Your task to perform on an android device: Do I have any events this weekend? Image 0: 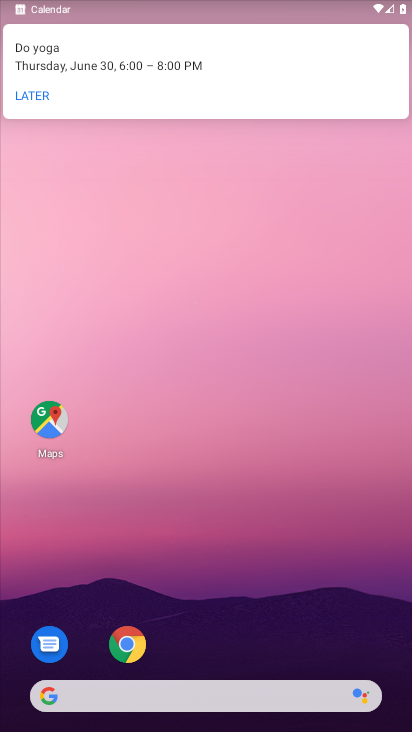
Step 0: drag from (151, 37) to (94, 102)
Your task to perform on an android device: Do I have any events this weekend? Image 1: 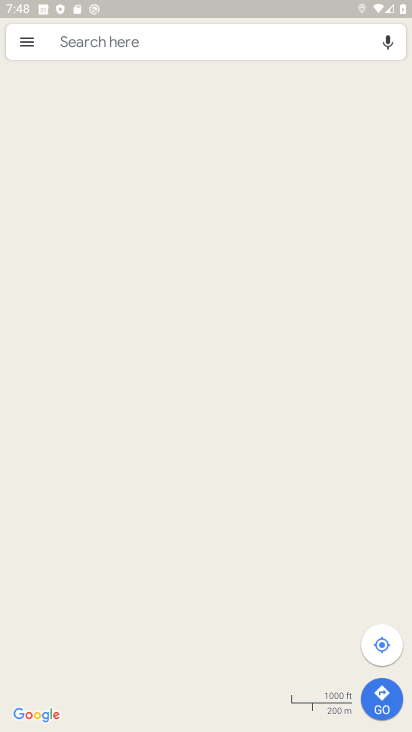
Step 1: press back button
Your task to perform on an android device: Do I have any events this weekend? Image 2: 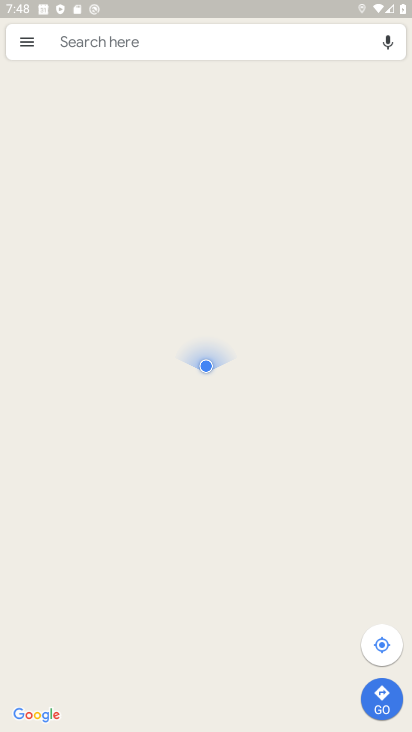
Step 2: press back button
Your task to perform on an android device: Do I have any events this weekend? Image 3: 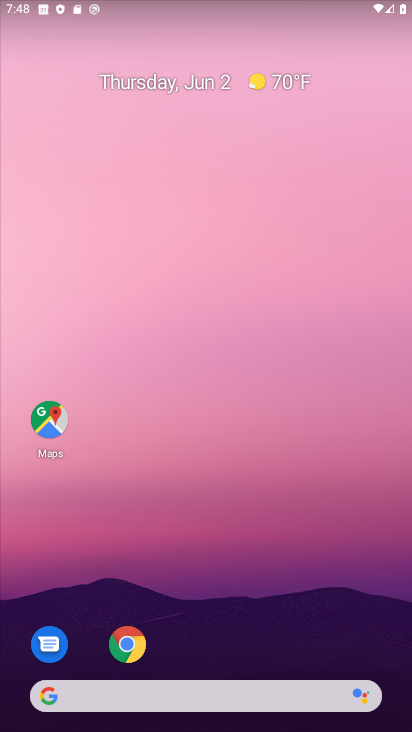
Step 3: drag from (190, 598) to (205, 45)
Your task to perform on an android device: Do I have any events this weekend? Image 4: 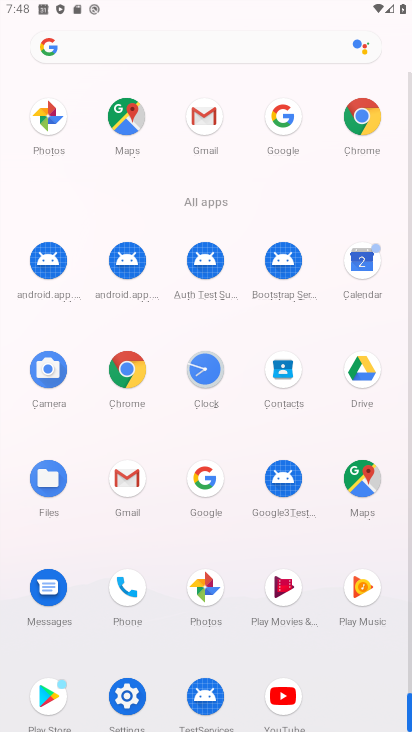
Step 4: click (359, 258)
Your task to perform on an android device: Do I have any events this weekend? Image 5: 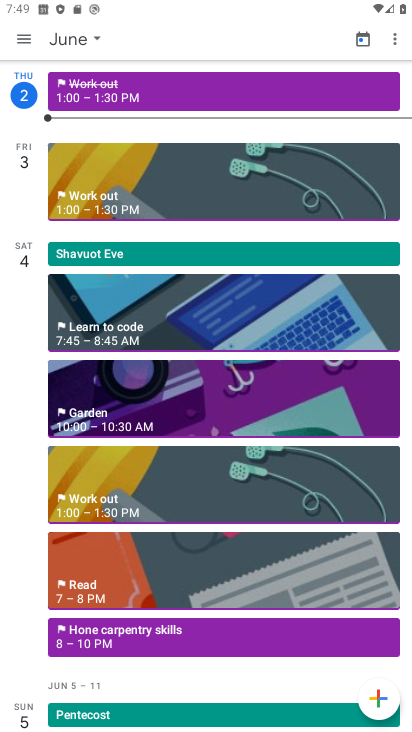
Step 5: click (19, 35)
Your task to perform on an android device: Do I have any events this weekend? Image 6: 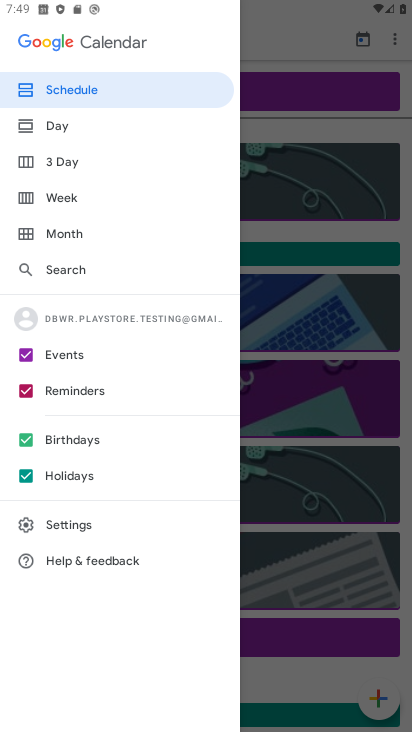
Step 6: click (72, 200)
Your task to perform on an android device: Do I have any events this weekend? Image 7: 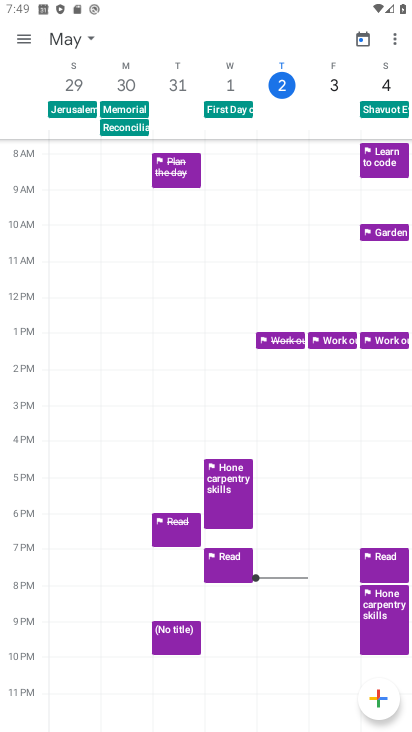
Step 7: click (383, 78)
Your task to perform on an android device: Do I have any events this weekend? Image 8: 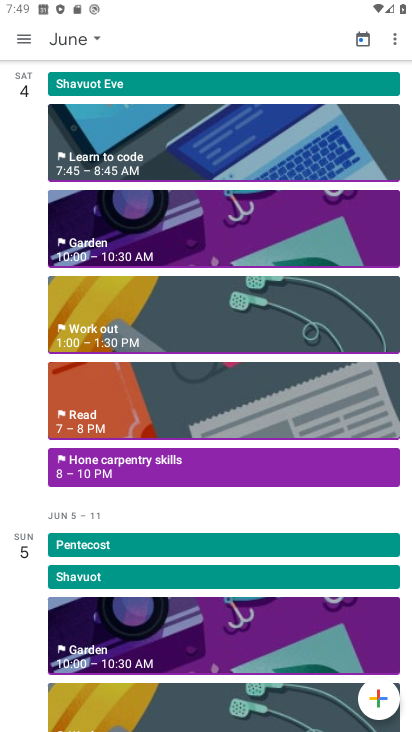
Step 8: task complete